Your task to perform on an android device: uninstall "Google Keep" Image 0: 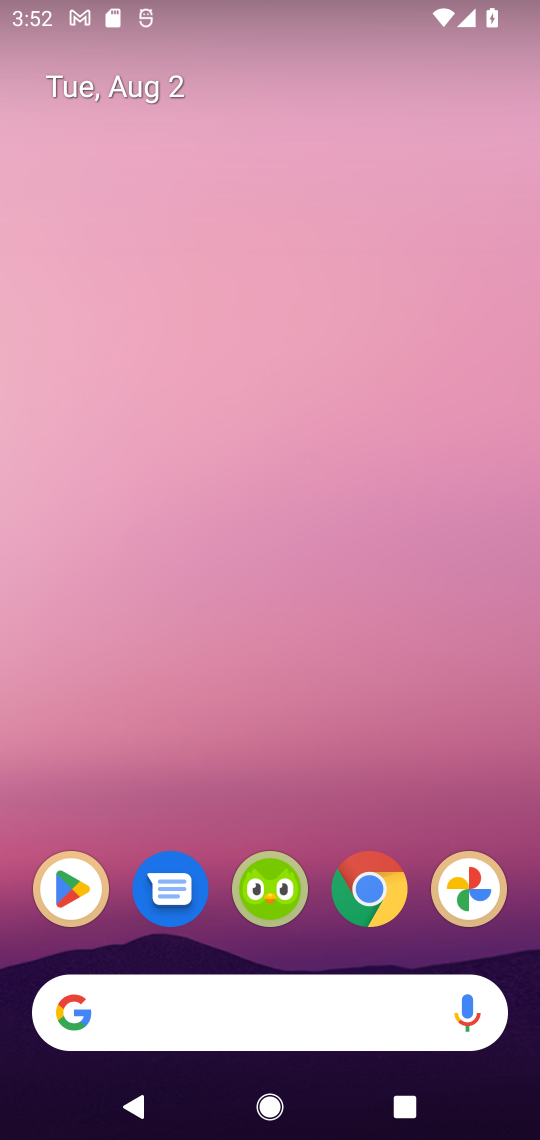
Step 0: press home button
Your task to perform on an android device: uninstall "Google Keep" Image 1: 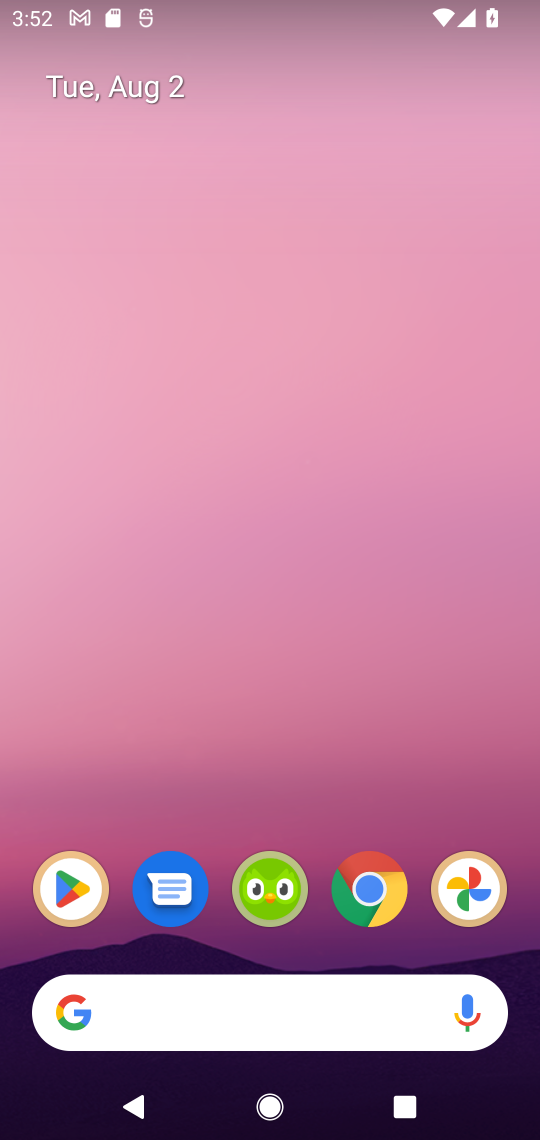
Step 1: drag from (370, 792) to (348, 96)
Your task to perform on an android device: uninstall "Google Keep" Image 2: 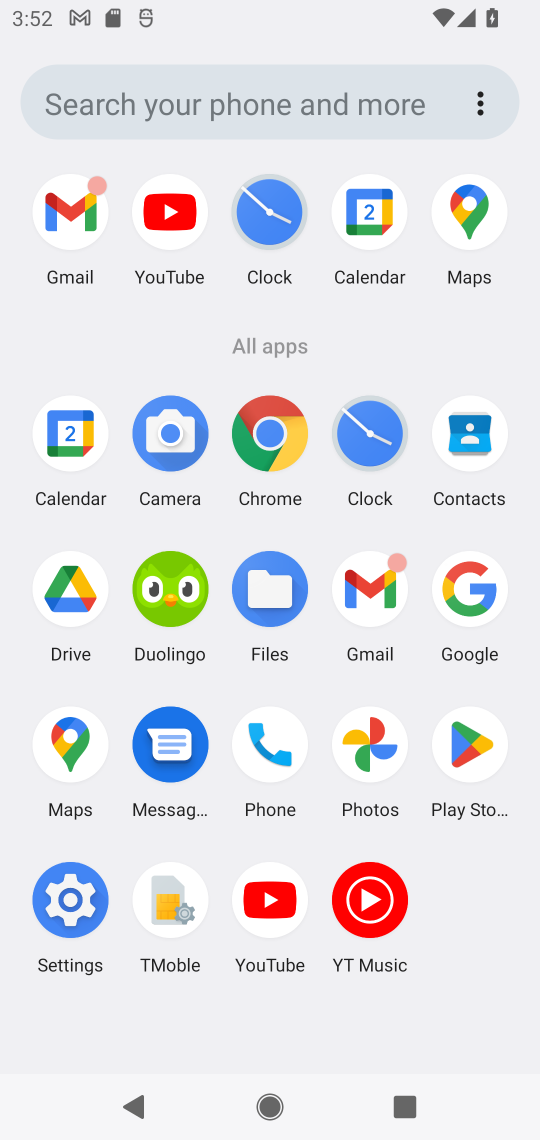
Step 2: click (471, 768)
Your task to perform on an android device: uninstall "Google Keep" Image 3: 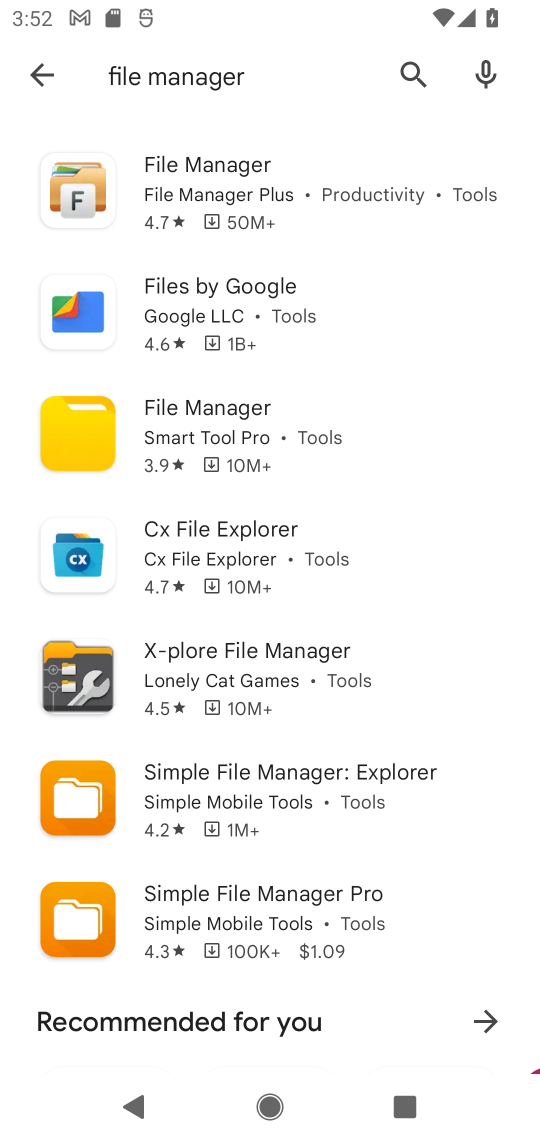
Step 3: click (405, 69)
Your task to perform on an android device: uninstall "Google Keep" Image 4: 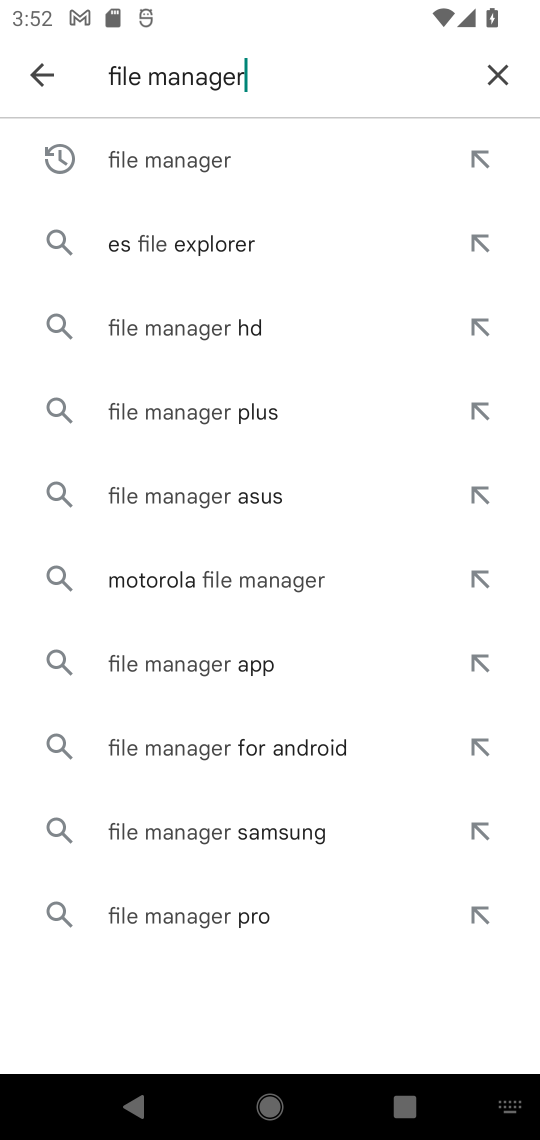
Step 4: click (502, 73)
Your task to perform on an android device: uninstall "Google Keep" Image 5: 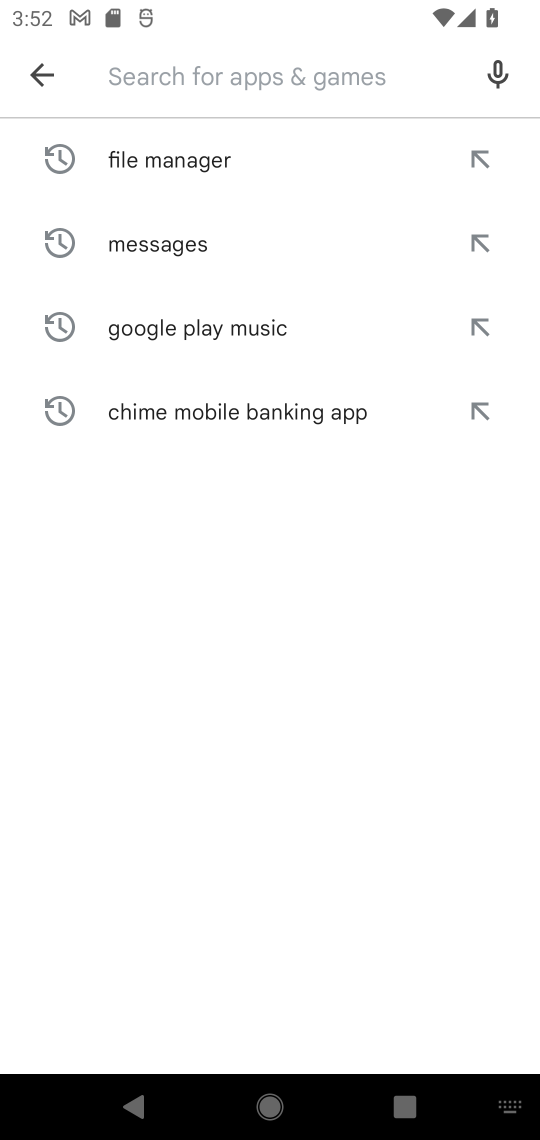
Step 5: click (351, 92)
Your task to perform on an android device: uninstall "Google Keep" Image 6: 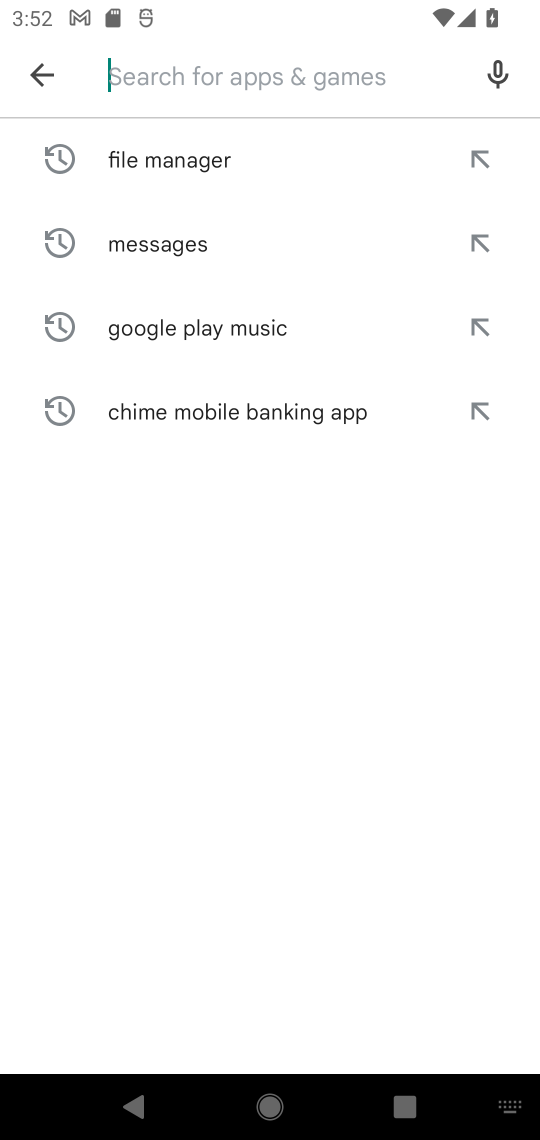
Step 6: type "google keep"
Your task to perform on an android device: uninstall "Google Keep" Image 7: 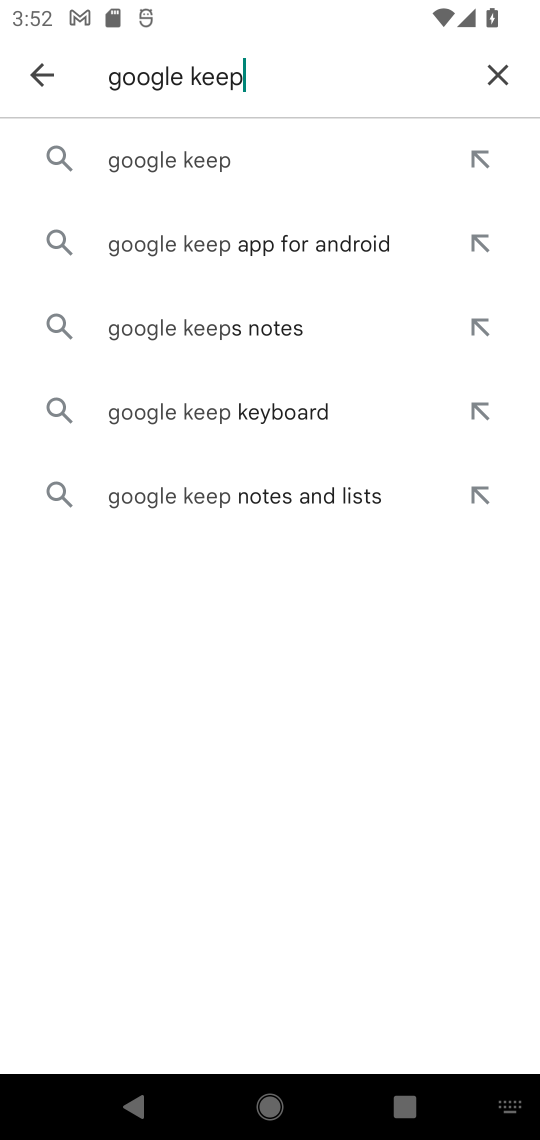
Step 7: click (247, 162)
Your task to perform on an android device: uninstall "Google Keep" Image 8: 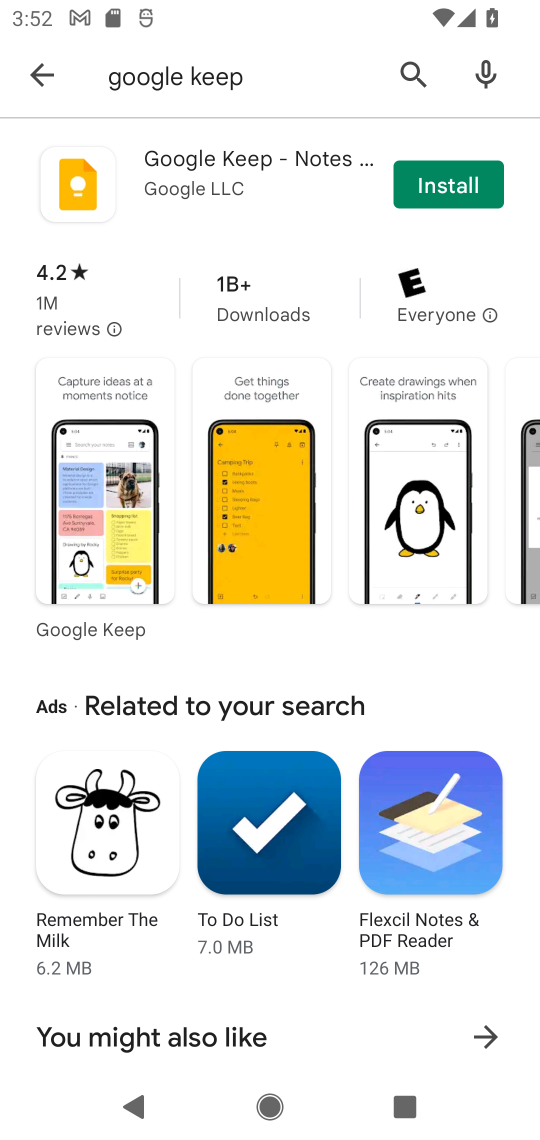
Step 8: task complete